Your task to perform on an android device: uninstall "Microsoft Excel" Image 0: 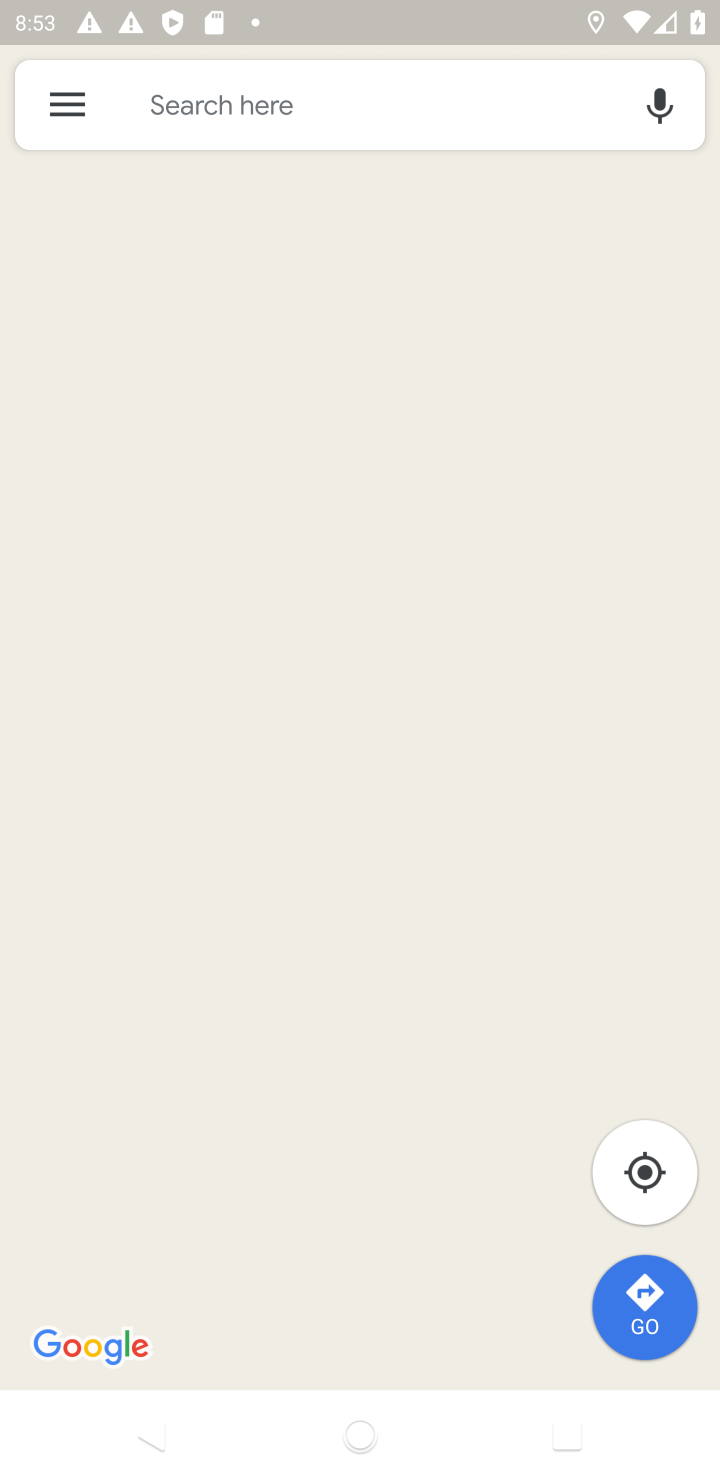
Step 0: press home button
Your task to perform on an android device: uninstall "Microsoft Excel" Image 1: 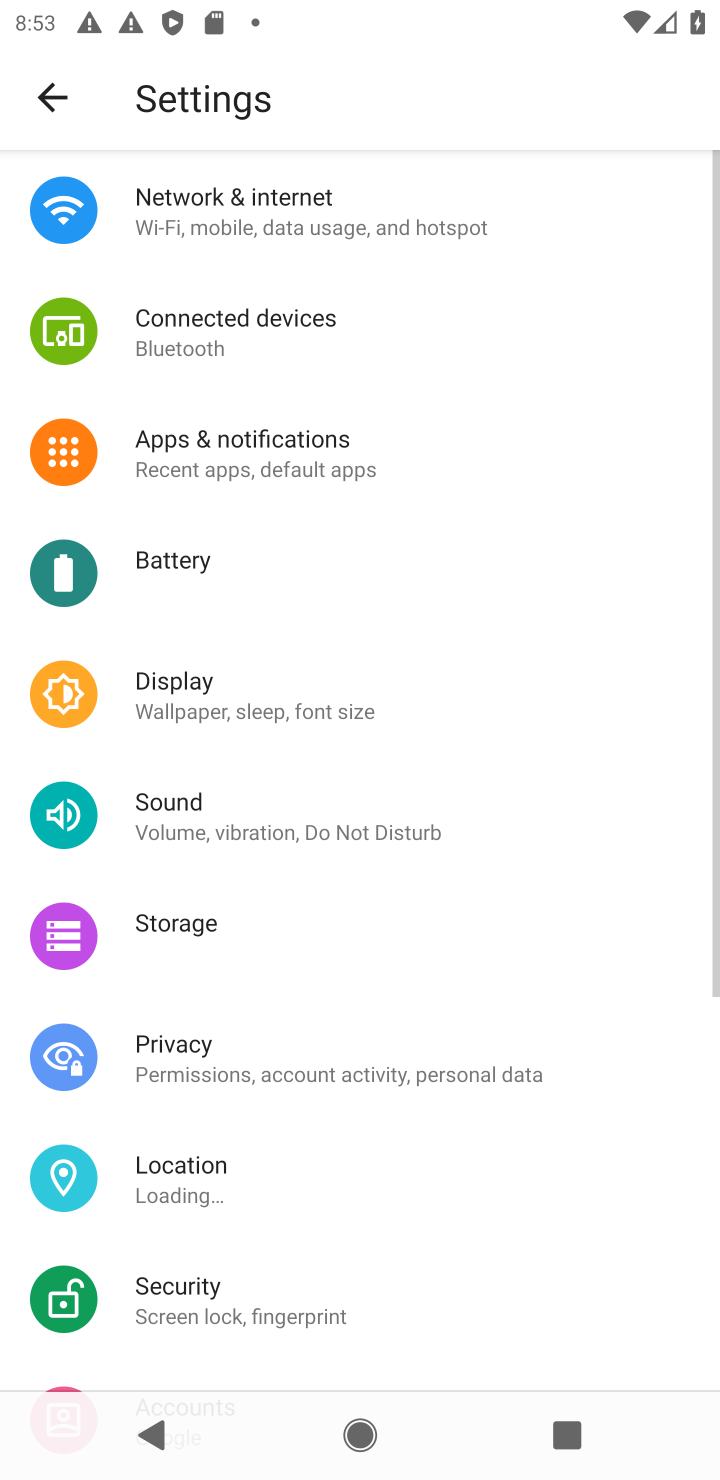
Step 1: press home button
Your task to perform on an android device: uninstall "Microsoft Excel" Image 2: 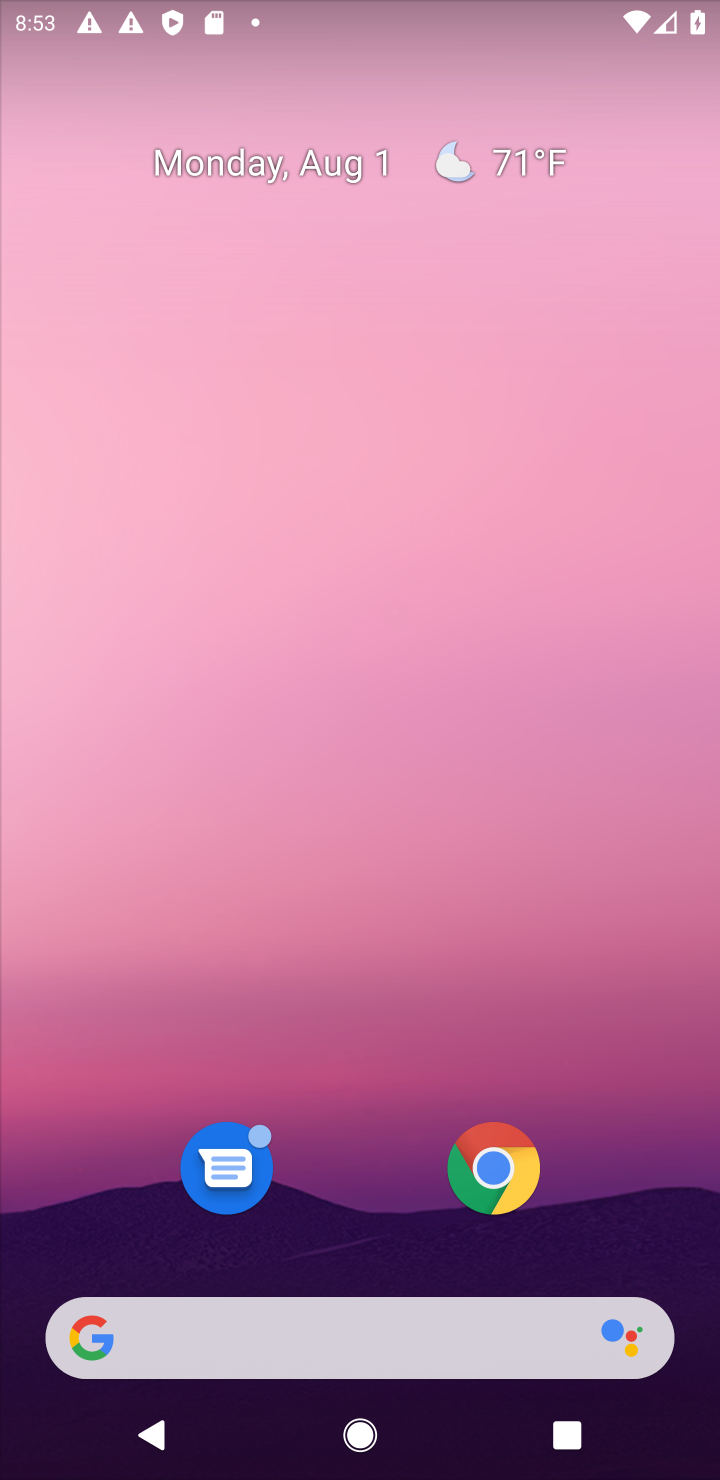
Step 2: press back button
Your task to perform on an android device: uninstall "Microsoft Excel" Image 3: 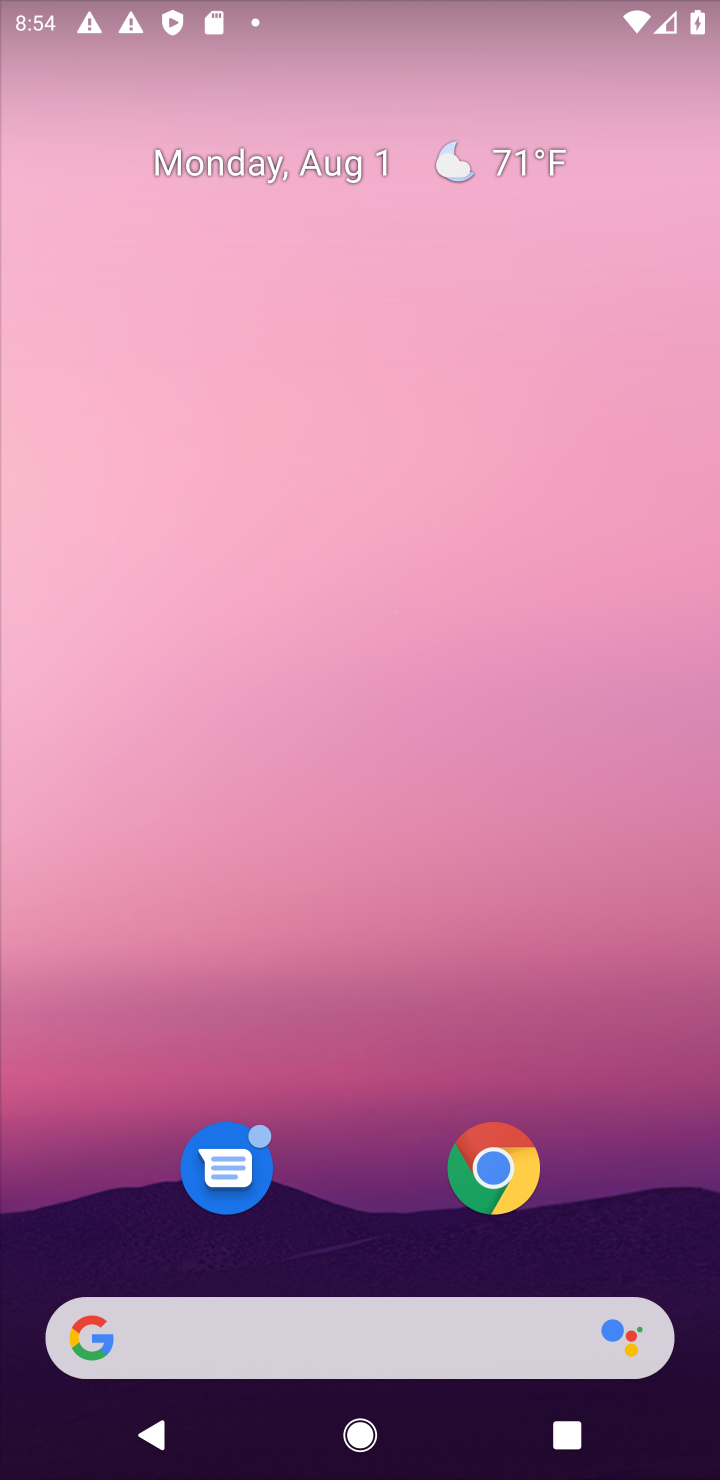
Step 3: drag from (363, 1236) to (349, 185)
Your task to perform on an android device: uninstall "Microsoft Excel" Image 4: 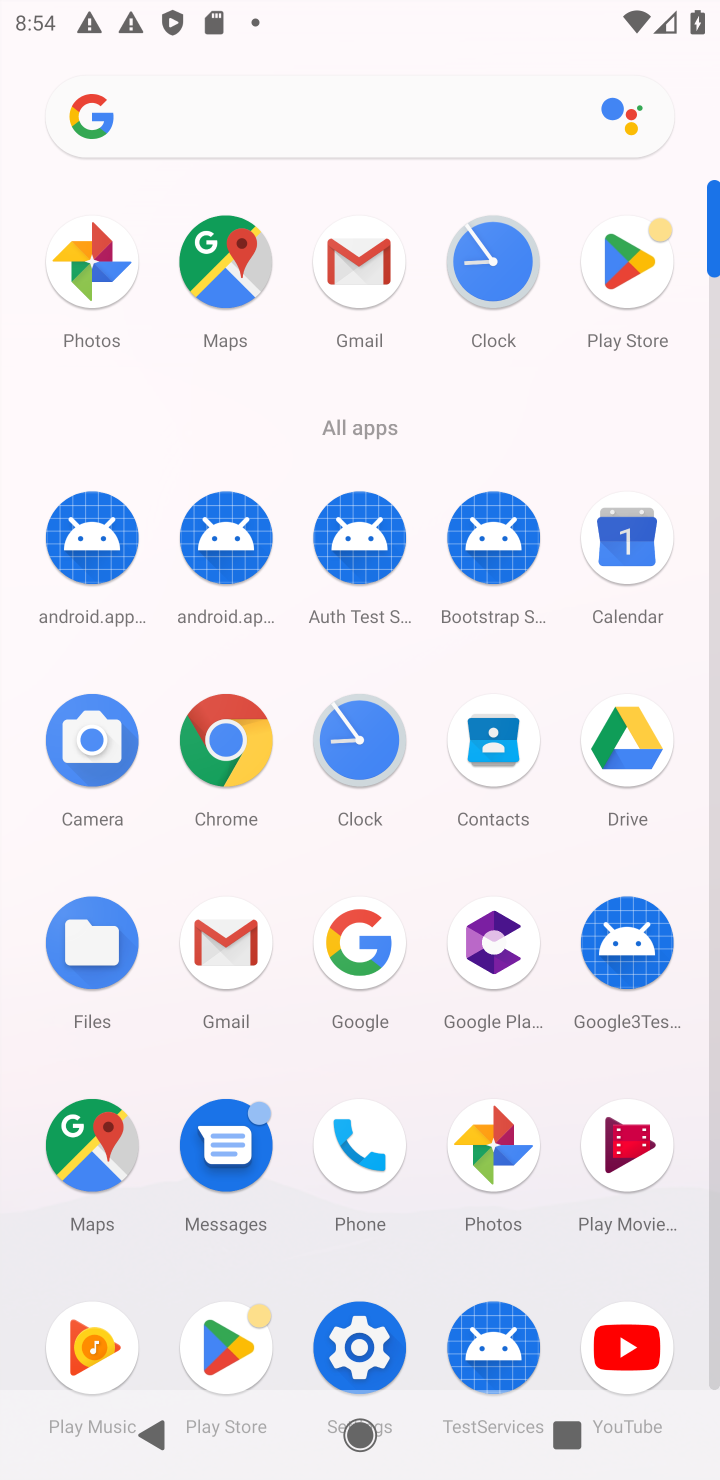
Step 4: click (199, 1329)
Your task to perform on an android device: uninstall "Microsoft Excel" Image 5: 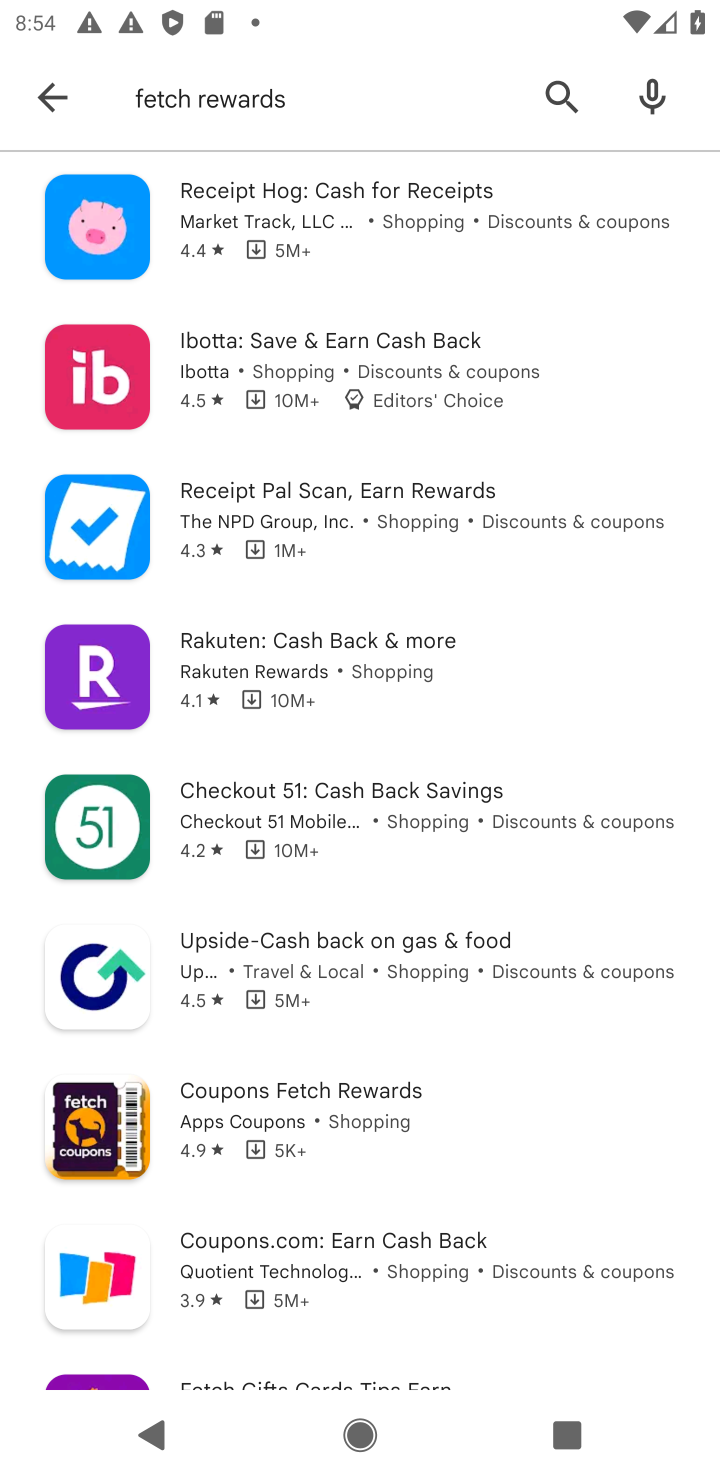
Step 5: click (39, 86)
Your task to perform on an android device: uninstall "Microsoft Excel" Image 6: 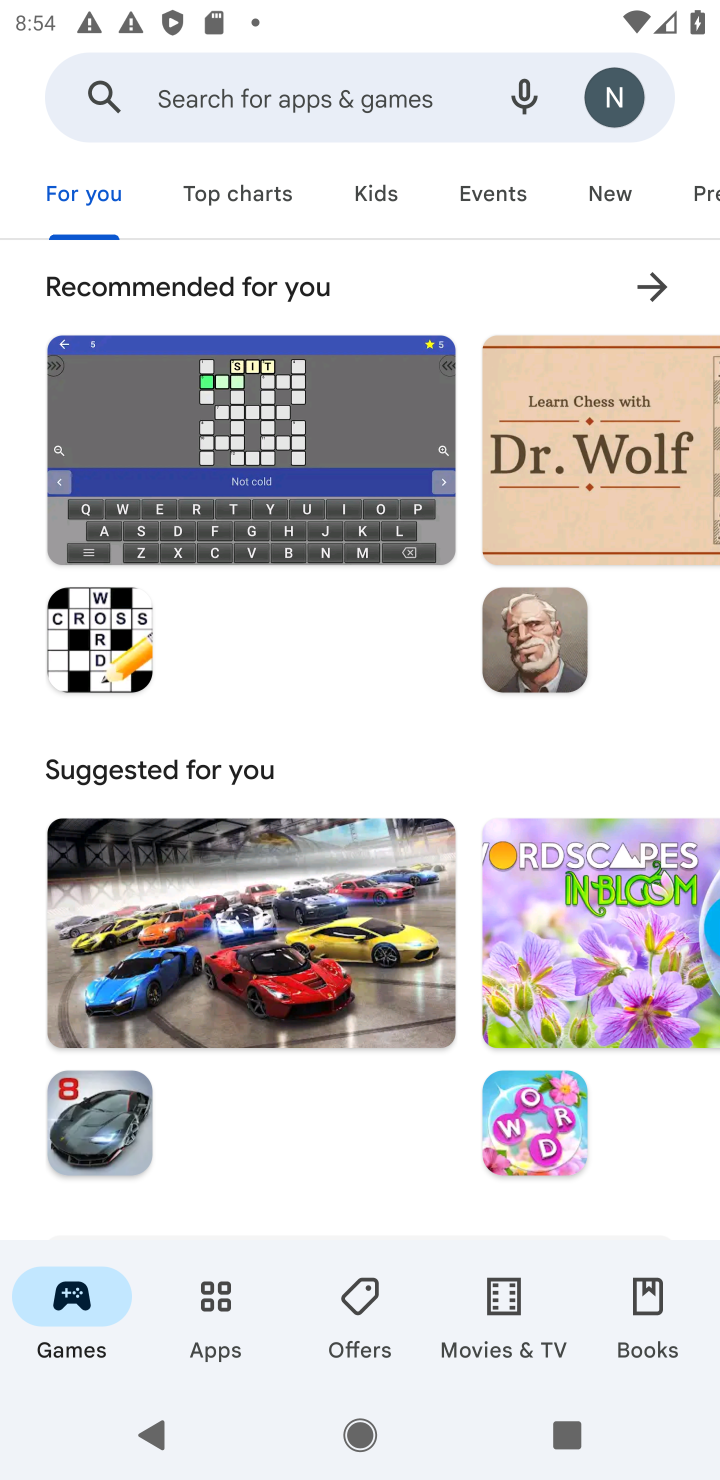
Step 6: click (385, 113)
Your task to perform on an android device: uninstall "Microsoft Excel" Image 7: 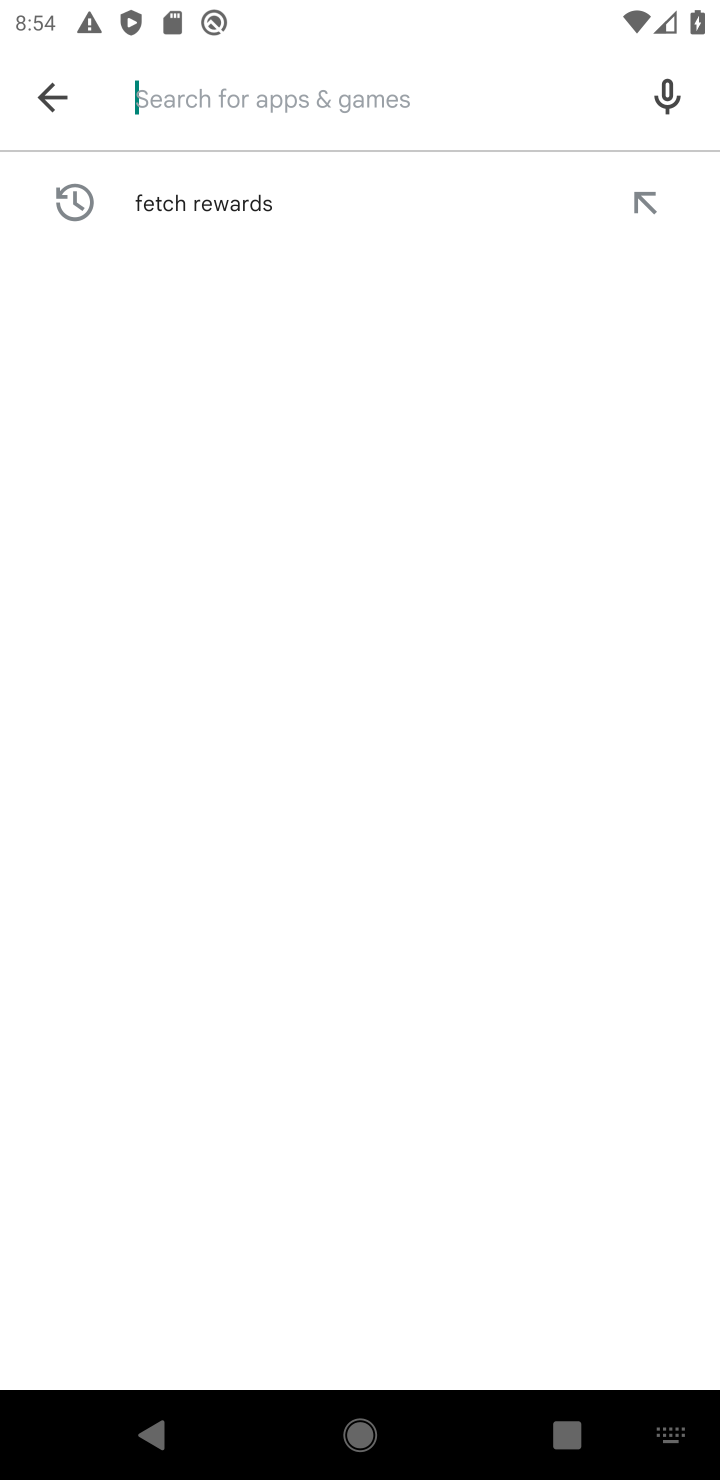
Step 7: type "Microsoft Excel"
Your task to perform on an android device: uninstall "Microsoft Excel" Image 8: 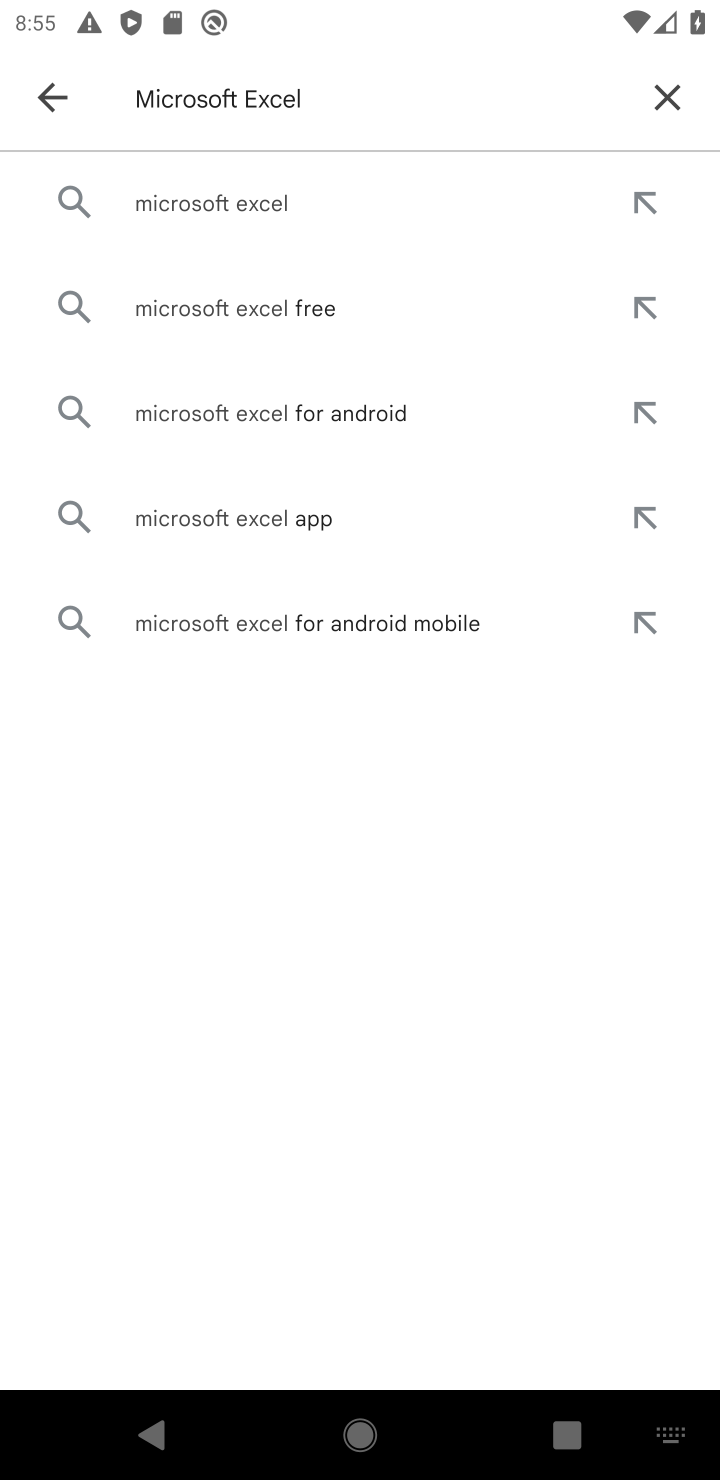
Step 8: click (192, 198)
Your task to perform on an android device: uninstall "Microsoft Excel" Image 9: 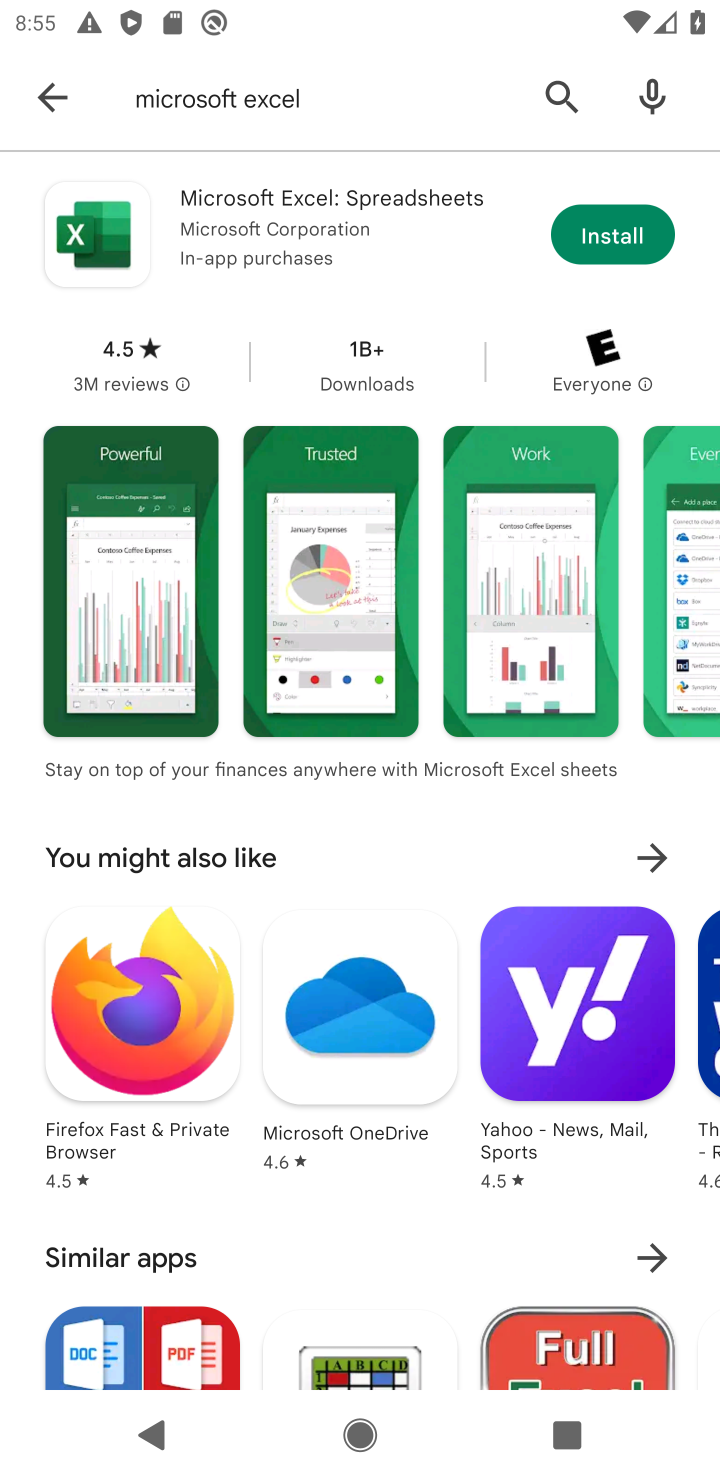
Step 9: click (250, 215)
Your task to perform on an android device: uninstall "Microsoft Excel" Image 10: 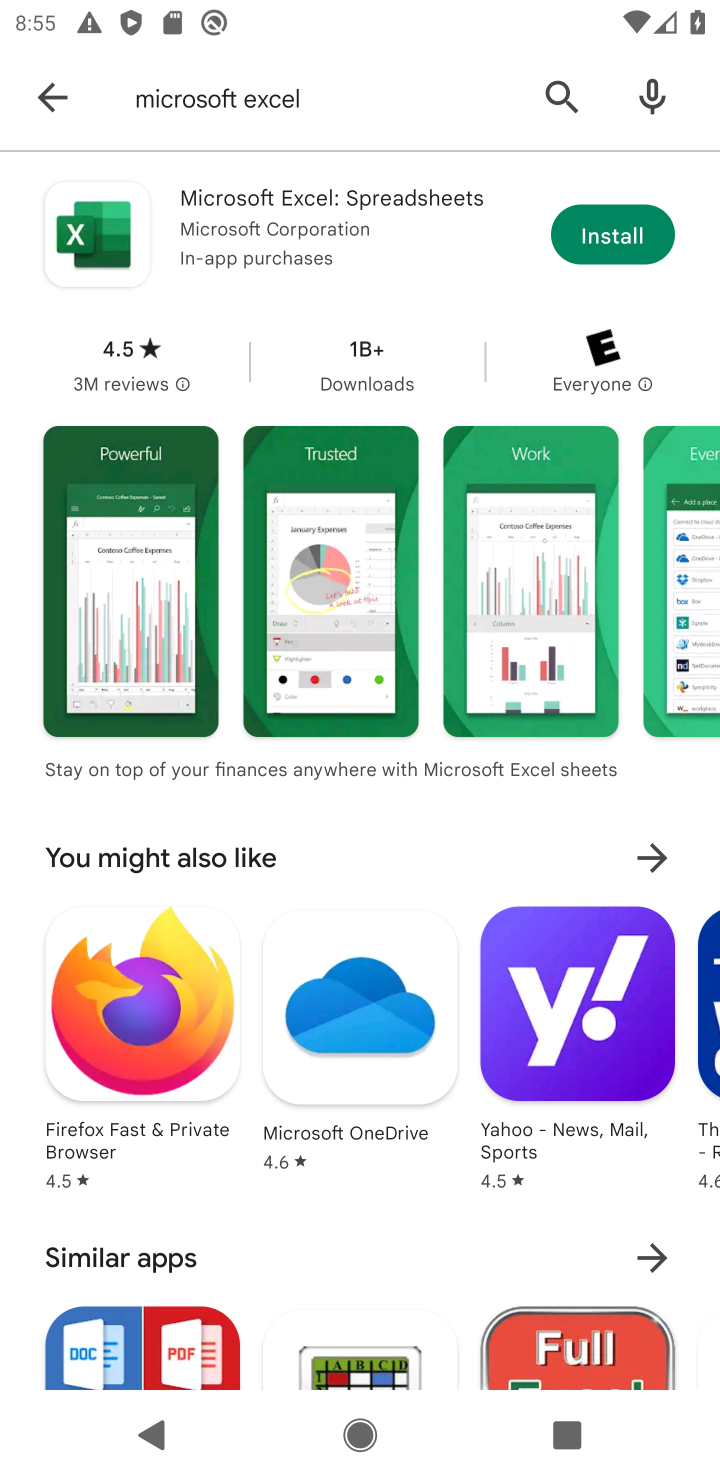
Step 10: task complete